Your task to perform on an android device: Open accessibility settings Image 0: 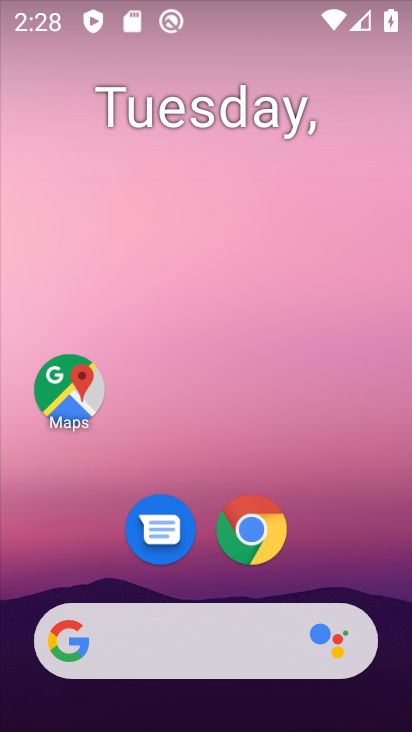
Step 0: drag from (335, 468) to (247, 88)
Your task to perform on an android device: Open accessibility settings Image 1: 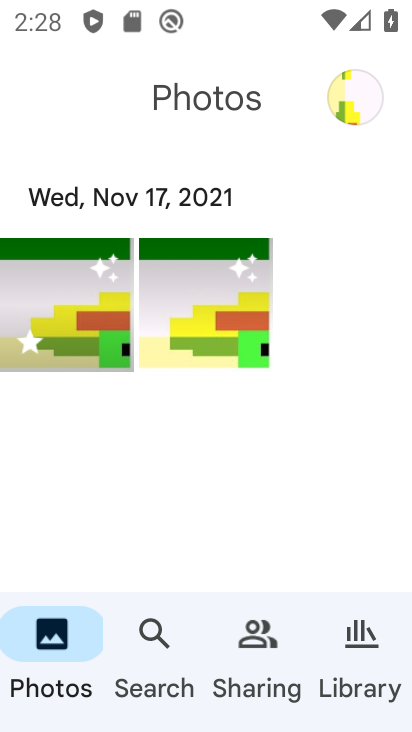
Step 1: press home button
Your task to perform on an android device: Open accessibility settings Image 2: 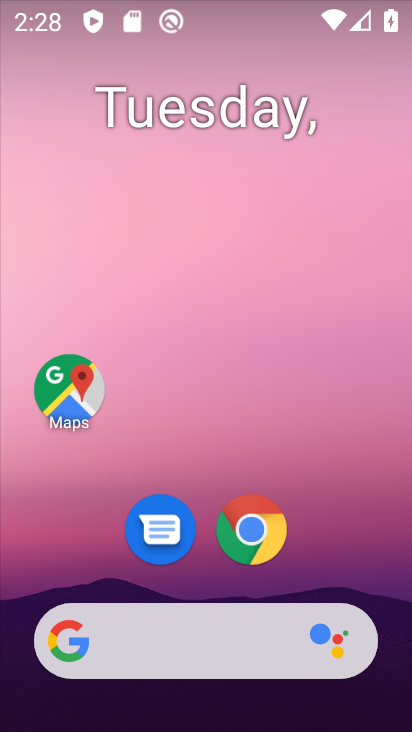
Step 2: drag from (394, 625) to (235, 71)
Your task to perform on an android device: Open accessibility settings Image 3: 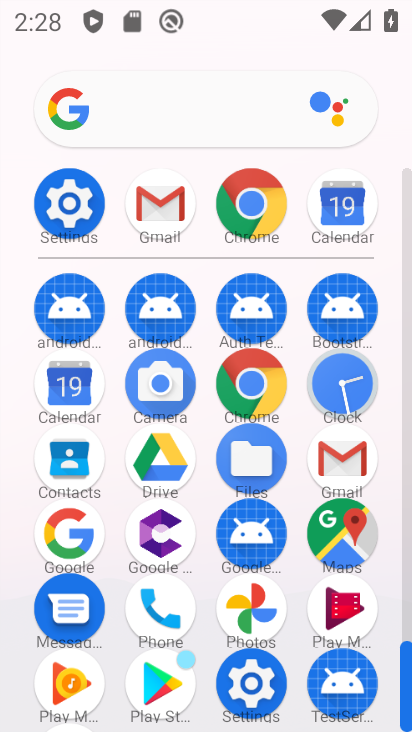
Step 3: click (48, 203)
Your task to perform on an android device: Open accessibility settings Image 4: 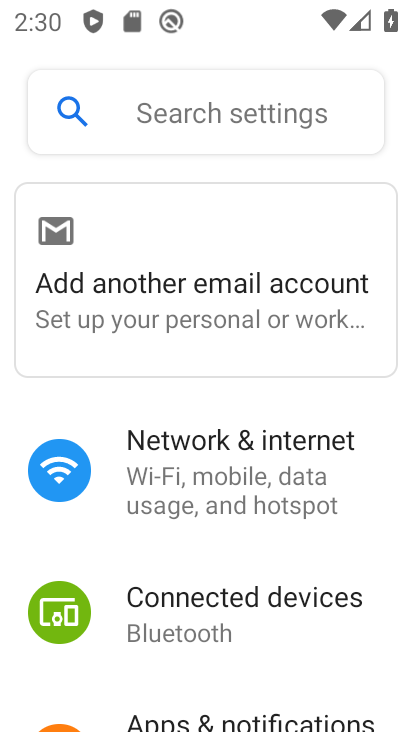
Step 4: drag from (72, 620) to (203, 132)
Your task to perform on an android device: Open accessibility settings Image 5: 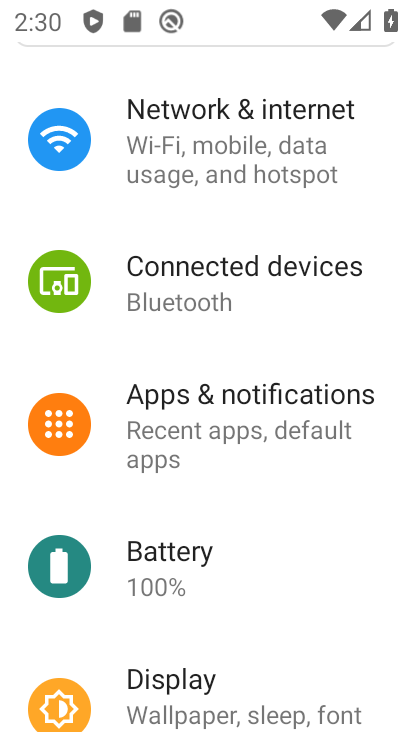
Step 5: drag from (186, 614) to (240, 118)
Your task to perform on an android device: Open accessibility settings Image 6: 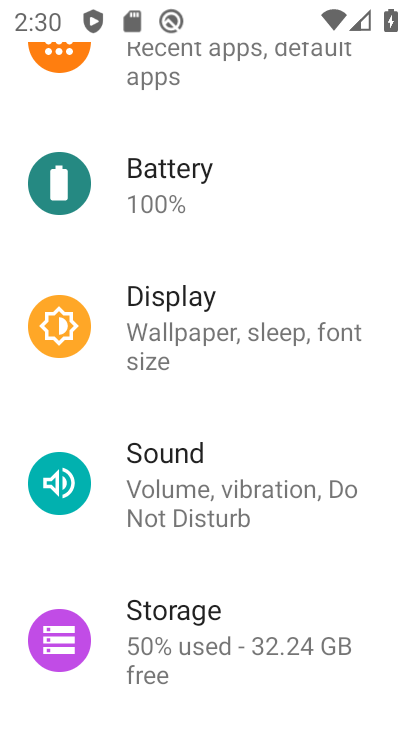
Step 6: drag from (181, 654) to (249, 106)
Your task to perform on an android device: Open accessibility settings Image 7: 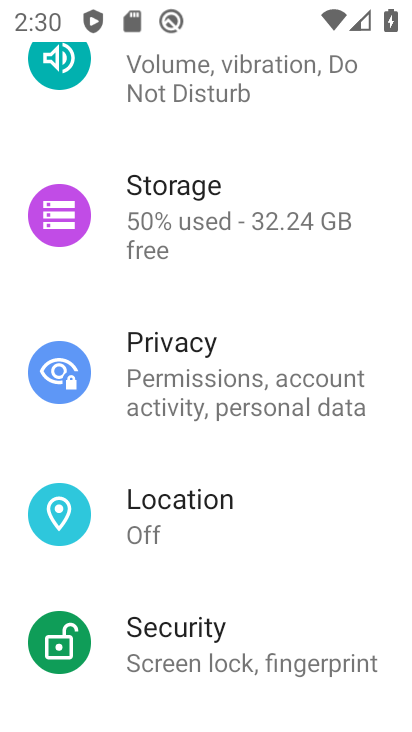
Step 7: drag from (190, 682) to (259, 167)
Your task to perform on an android device: Open accessibility settings Image 8: 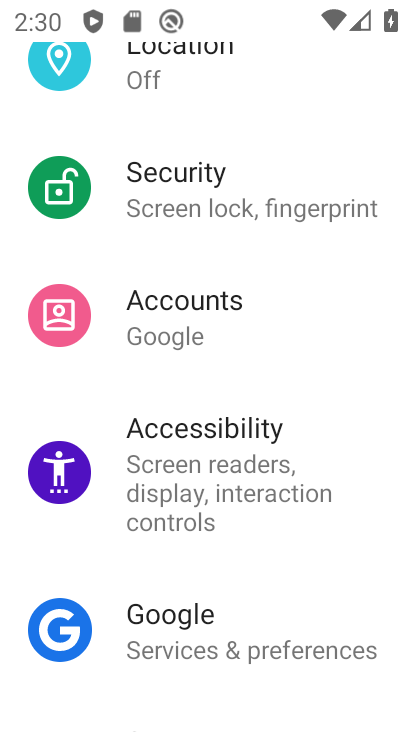
Step 8: click (241, 467)
Your task to perform on an android device: Open accessibility settings Image 9: 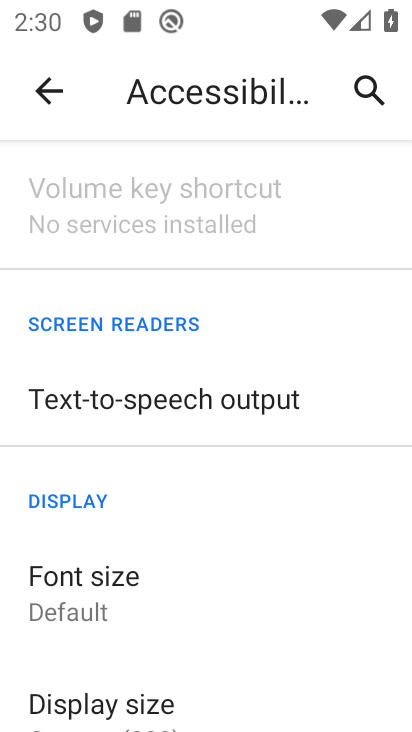
Step 9: task complete